Your task to perform on an android device: Open calendar and show me the second week of next month Image 0: 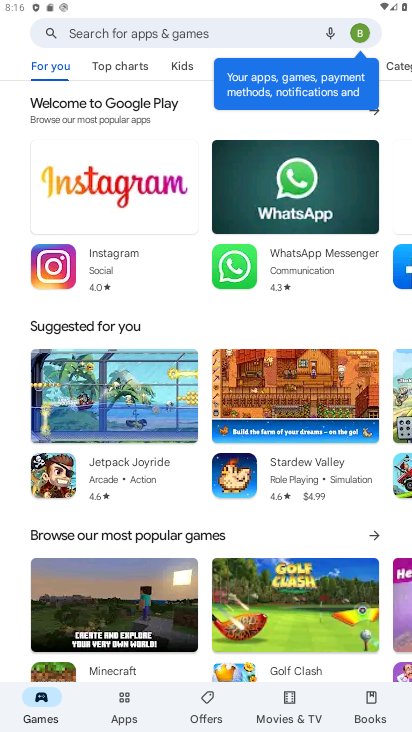
Step 0: press home button
Your task to perform on an android device: Open calendar and show me the second week of next month Image 1: 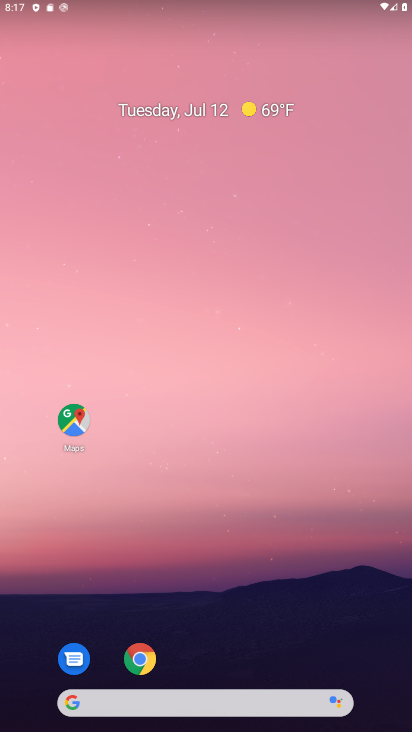
Step 1: drag from (225, 728) to (260, 141)
Your task to perform on an android device: Open calendar and show me the second week of next month Image 2: 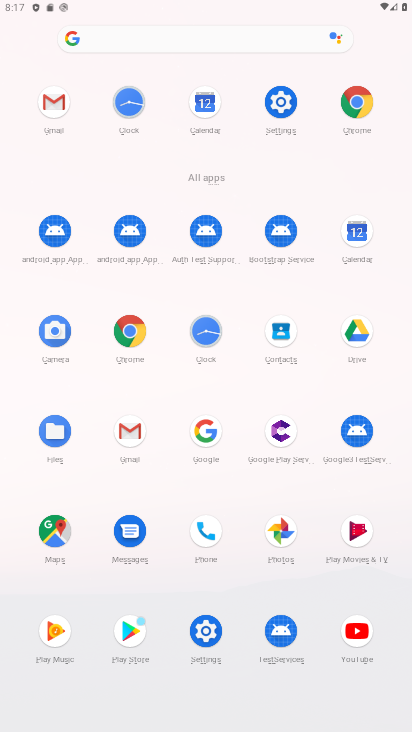
Step 2: click (359, 237)
Your task to perform on an android device: Open calendar and show me the second week of next month Image 3: 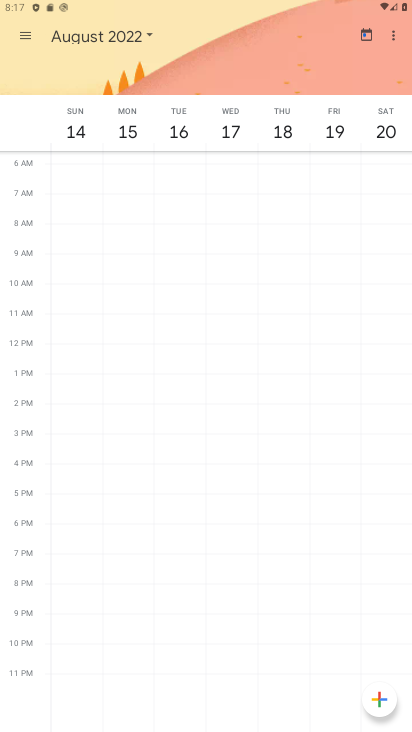
Step 3: click (155, 34)
Your task to perform on an android device: Open calendar and show me the second week of next month Image 4: 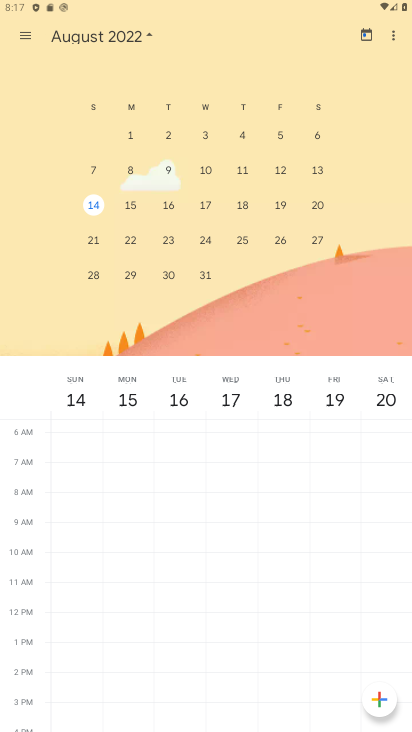
Step 4: click (128, 169)
Your task to perform on an android device: Open calendar and show me the second week of next month Image 5: 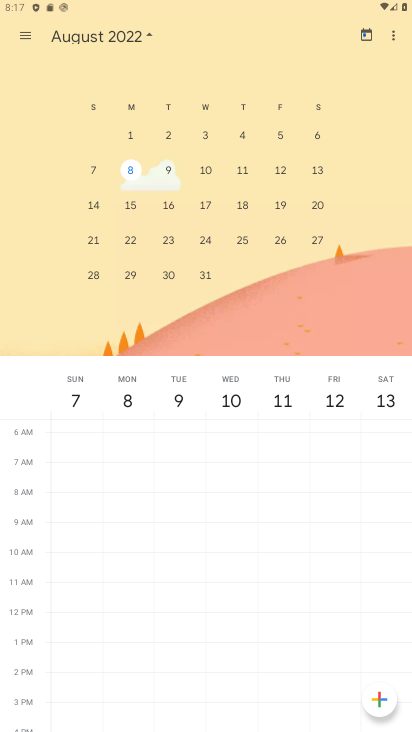
Step 5: click (130, 164)
Your task to perform on an android device: Open calendar and show me the second week of next month Image 6: 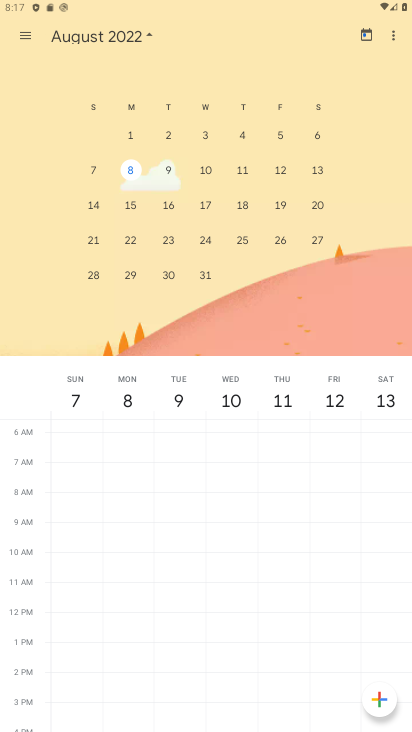
Step 6: task complete